Your task to perform on an android device: set default search engine in the chrome app Image 0: 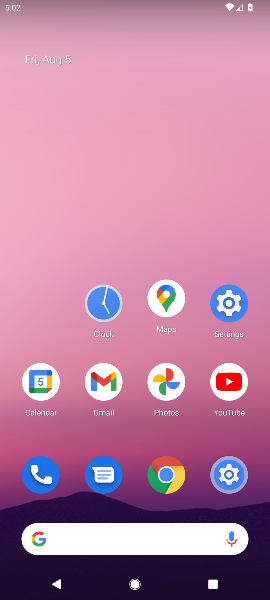
Step 0: click (172, 472)
Your task to perform on an android device: set default search engine in the chrome app Image 1: 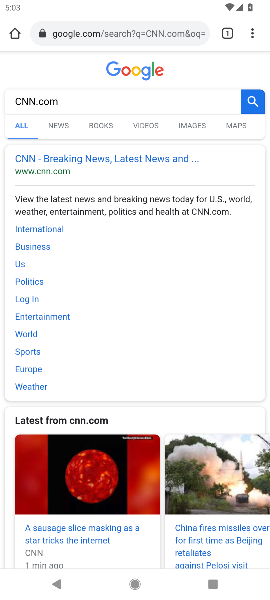
Step 1: click (250, 33)
Your task to perform on an android device: set default search engine in the chrome app Image 2: 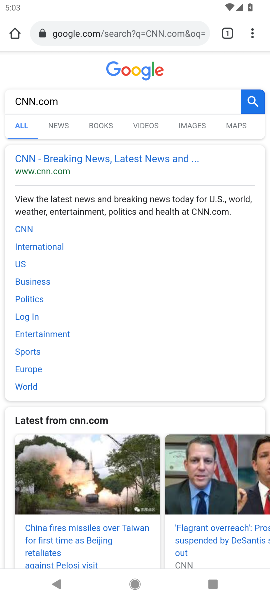
Step 2: click (257, 35)
Your task to perform on an android device: set default search engine in the chrome app Image 3: 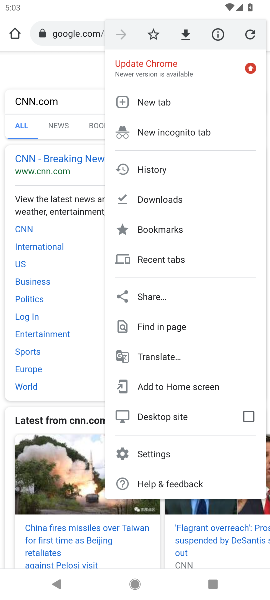
Step 3: click (163, 454)
Your task to perform on an android device: set default search engine in the chrome app Image 4: 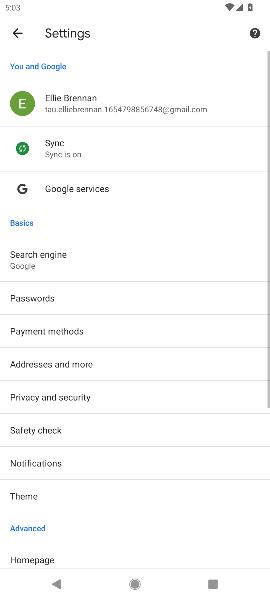
Step 4: click (39, 249)
Your task to perform on an android device: set default search engine in the chrome app Image 5: 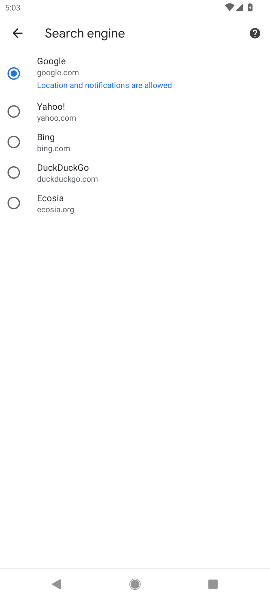
Step 5: task complete